Your task to perform on an android device: Open the web browser Image 0: 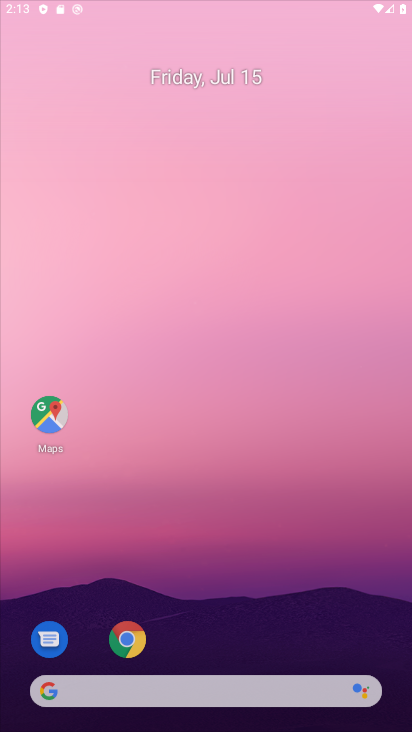
Step 0: drag from (310, 464) to (264, 2)
Your task to perform on an android device: Open the web browser Image 1: 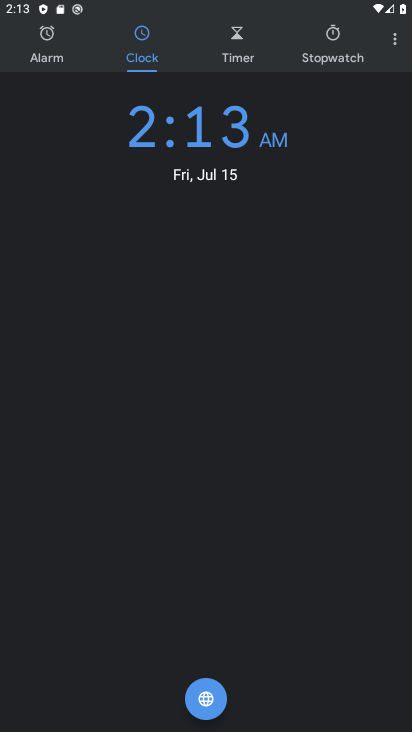
Step 1: press home button
Your task to perform on an android device: Open the web browser Image 2: 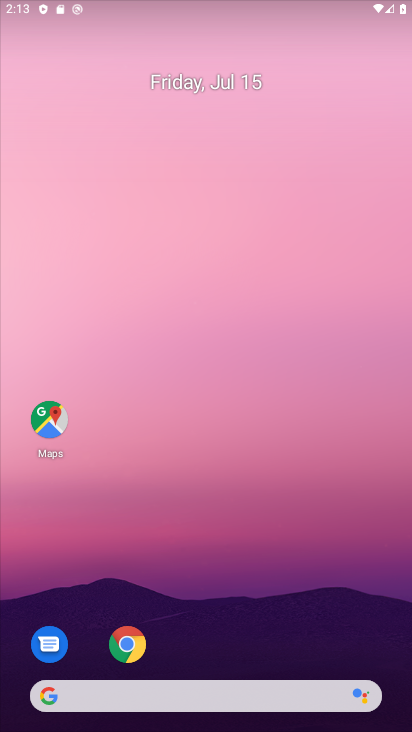
Step 2: drag from (254, 695) to (298, 30)
Your task to perform on an android device: Open the web browser Image 3: 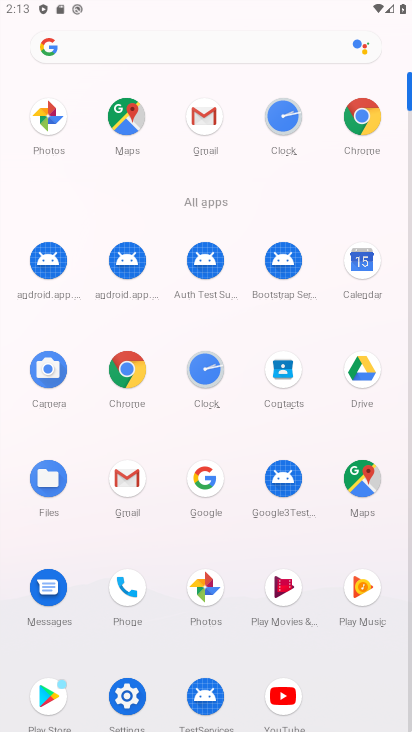
Step 3: click (134, 358)
Your task to perform on an android device: Open the web browser Image 4: 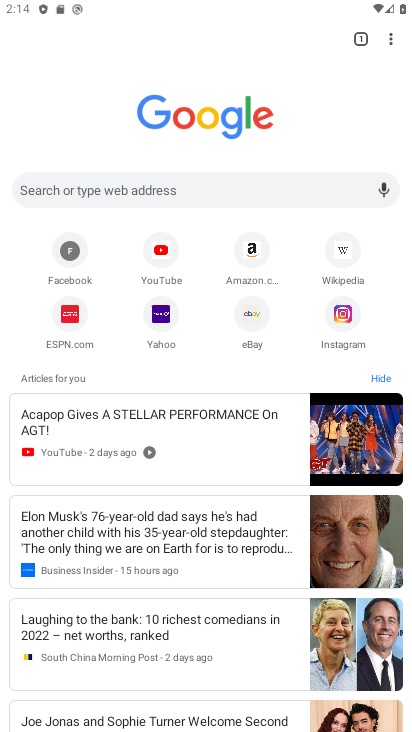
Step 4: task complete